Your task to perform on an android device: Search for sushi restaurants on Maps Image 0: 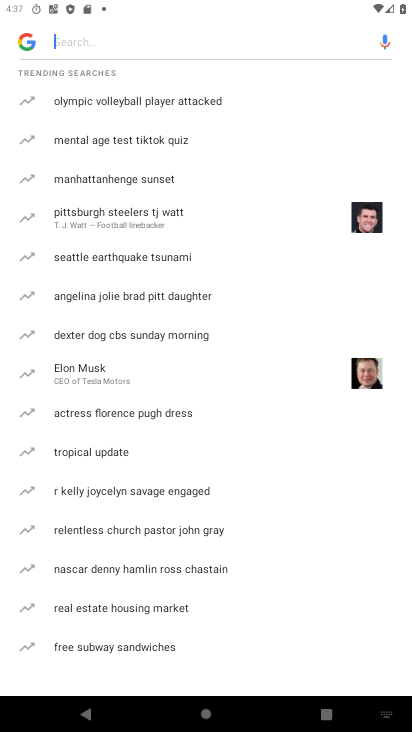
Step 0: press home button
Your task to perform on an android device: Search for sushi restaurants on Maps Image 1: 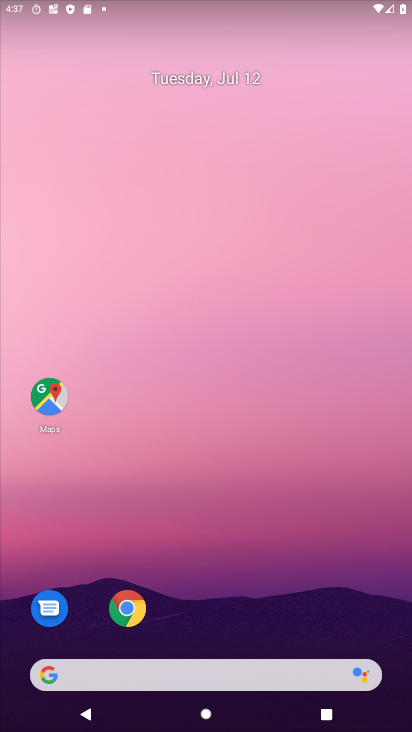
Step 1: click (49, 384)
Your task to perform on an android device: Search for sushi restaurants on Maps Image 2: 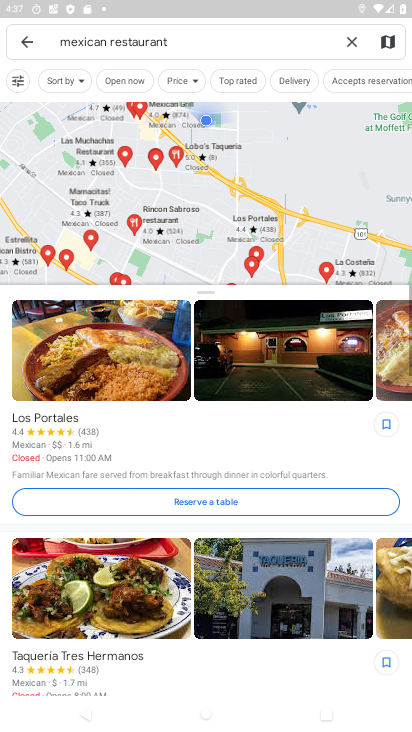
Step 2: click (351, 40)
Your task to perform on an android device: Search for sushi restaurants on Maps Image 3: 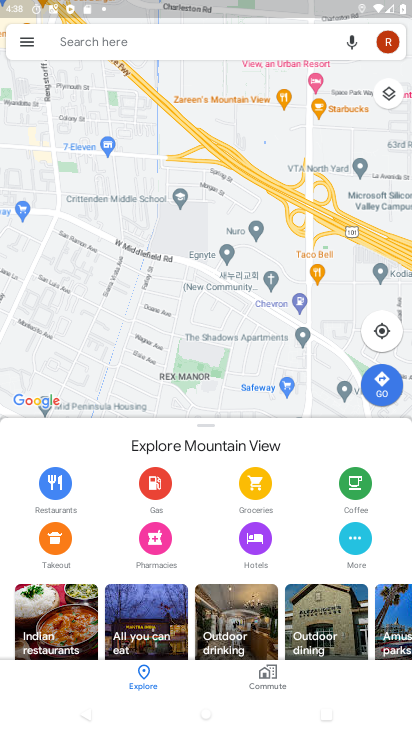
Step 3: click (273, 47)
Your task to perform on an android device: Search for sushi restaurants on Maps Image 4: 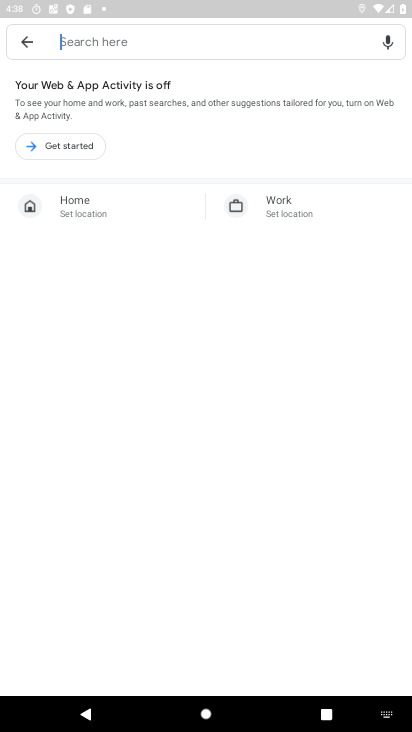
Step 4: type "sushi restaurants"
Your task to perform on an android device: Search for sushi restaurants on Maps Image 5: 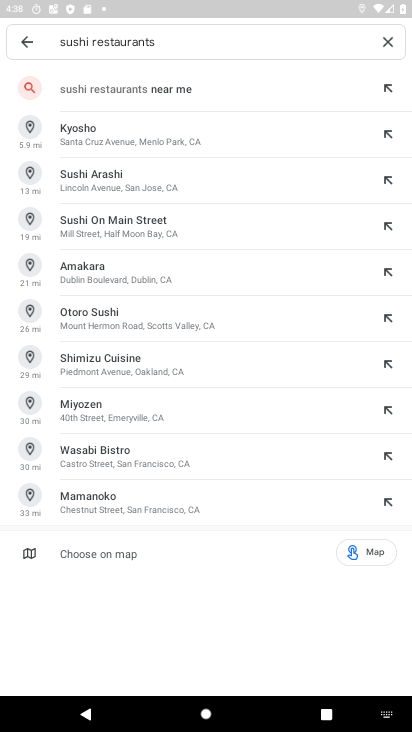
Step 5: click (147, 101)
Your task to perform on an android device: Search for sushi restaurants on Maps Image 6: 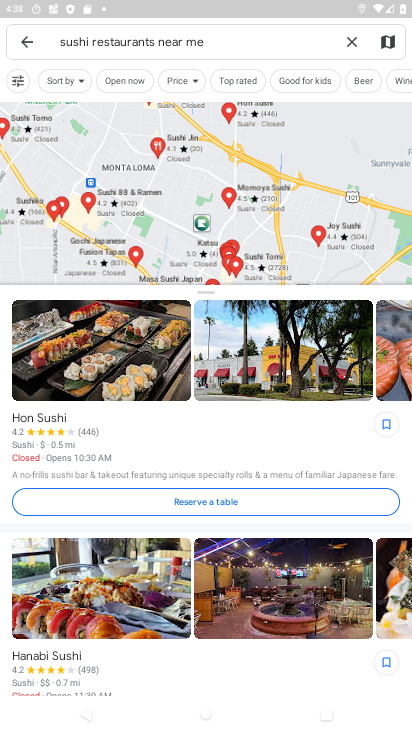
Step 6: task complete